Your task to perform on an android device: Check the news Image 0: 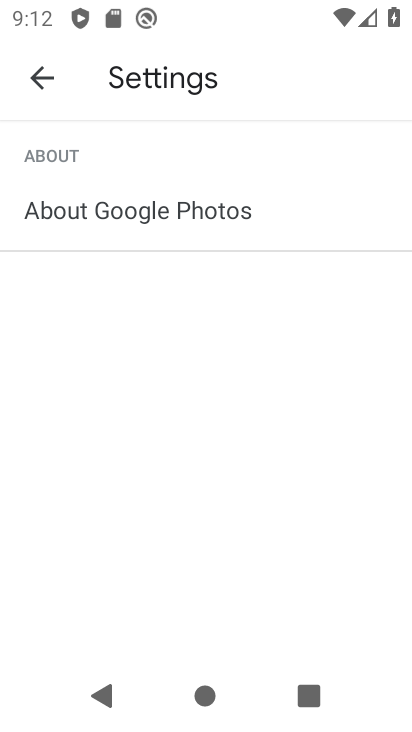
Step 0: press home button
Your task to perform on an android device: Check the news Image 1: 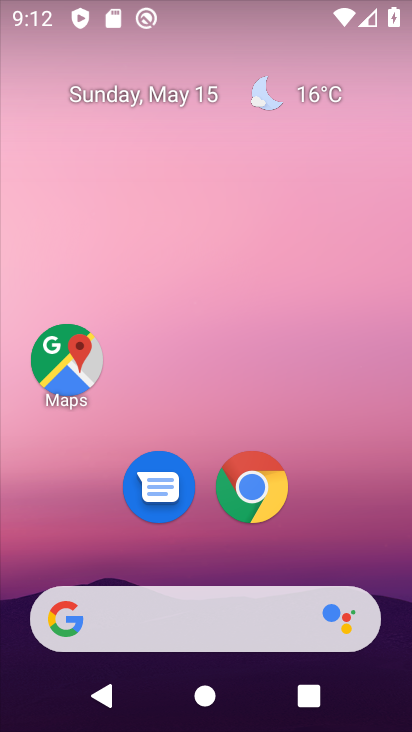
Step 1: task complete